Your task to perform on an android device: open a bookmark in the chrome app Image 0: 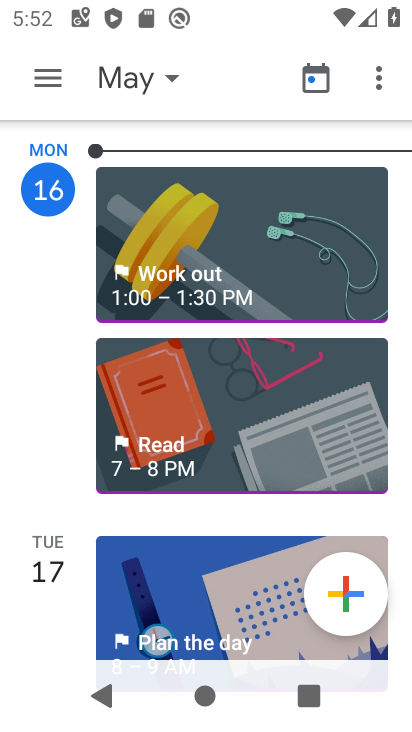
Step 0: press home button
Your task to perform on an android device: open a bookmark in the chrome app Image 1: 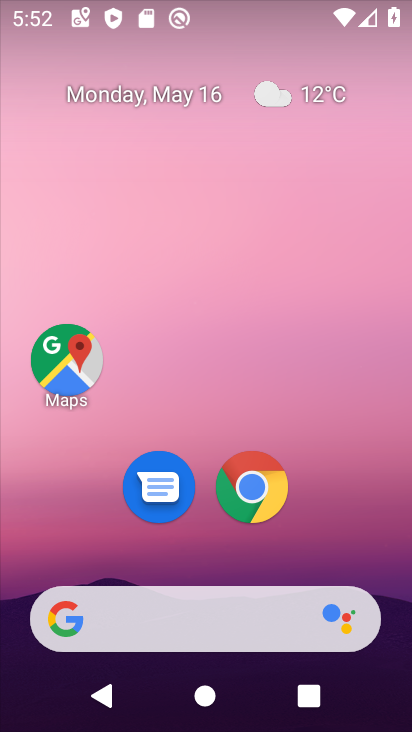
Step 1: click (264, 484)
Your task to perform on an android device: open a bookmark in the chrome app Image 2: 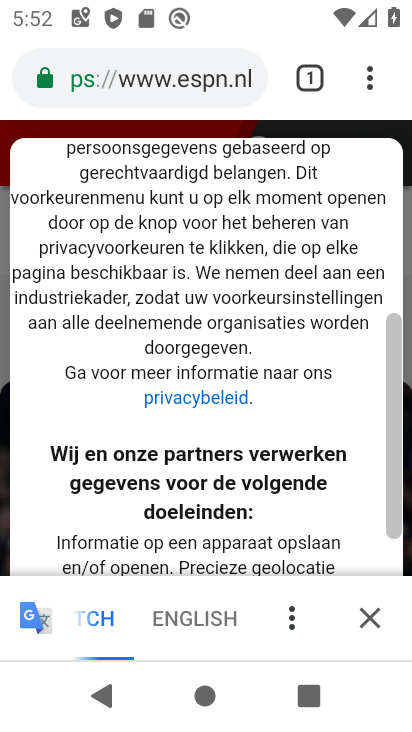
Step 2: drag from (372, 75) to (151, 305)
Your task to perform on an android device: open a bookmark in the chrome app Image 3: 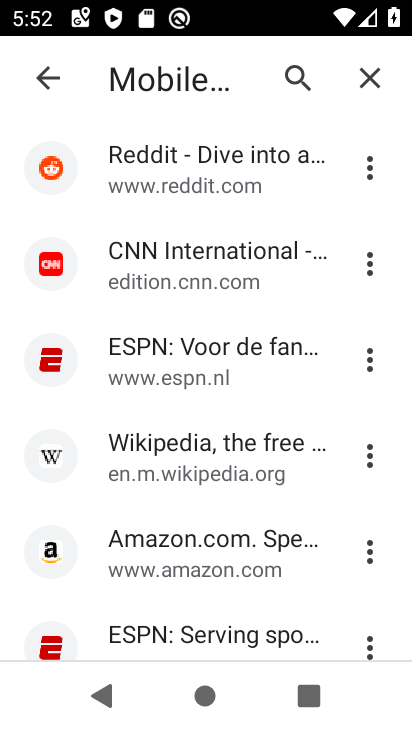
Step 3: click (164, 162)
Your task to perform on an android device: open a bookmark in the chrome app Image 4: 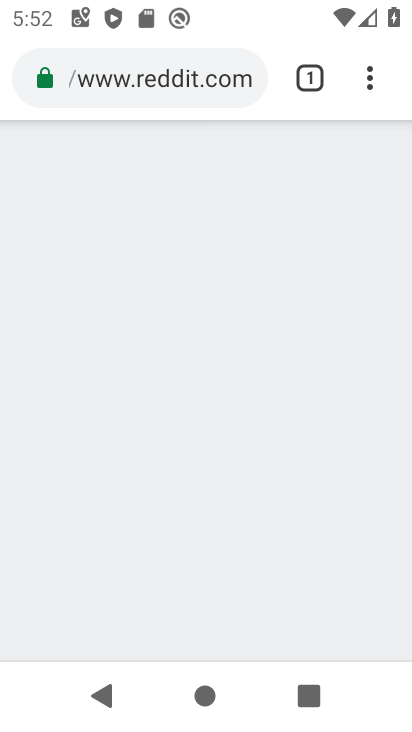
Step 4: task complete